Your task to perform on an android device: Is it going to rain tomorrow? Image 0: 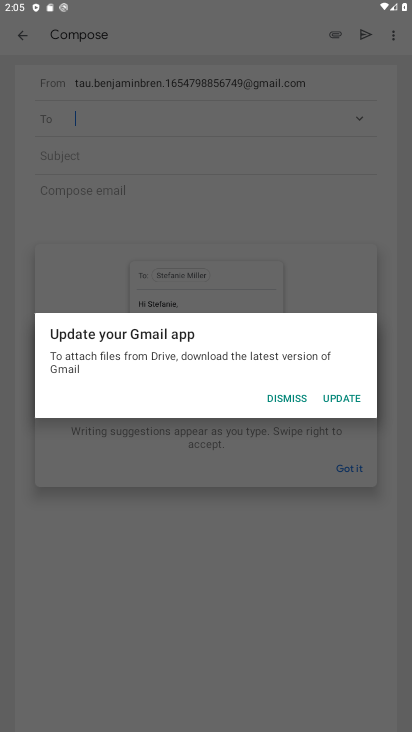
Step 0: press home button
Your task to perform on an android device: Is it going to rain tomorrow? Image 1: 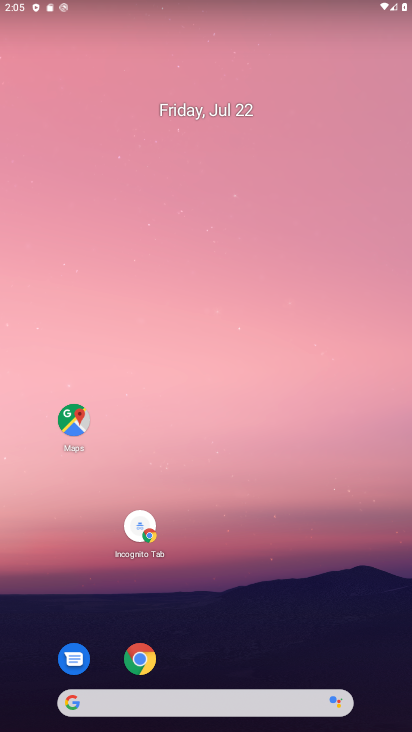
Step 1: click (283, 669)
Your task to perform on an android device: Is it going to rain tomorrow? Image 2: 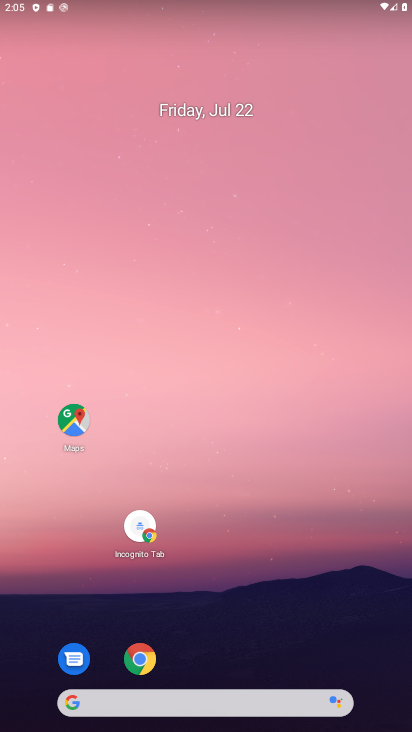
Step 2: click (136, 647)
Your task to perform on an android device: Is it going to rain tomorrow? Image 3: 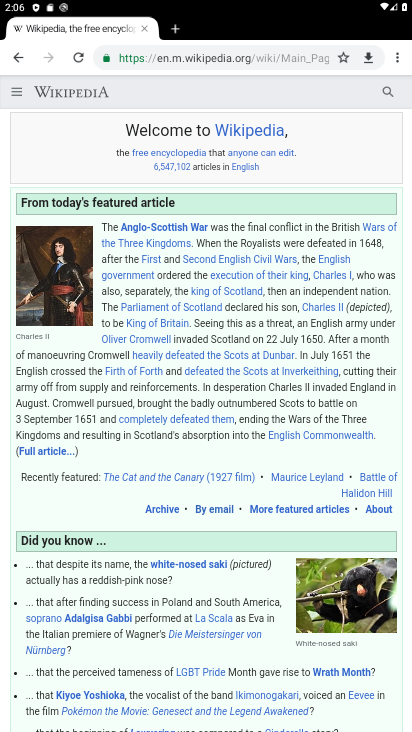
Step 3: click (261, 53)
Your task to perform on an android device: Is it going to rain tomorrow? Image 4: 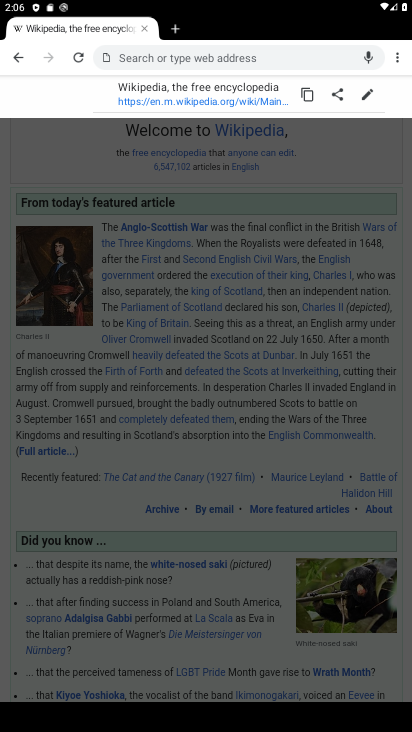
Step 4: type "weather tomorrow"
Your task to perform on an android device: Is it going to rain tomorrow? Image 5: 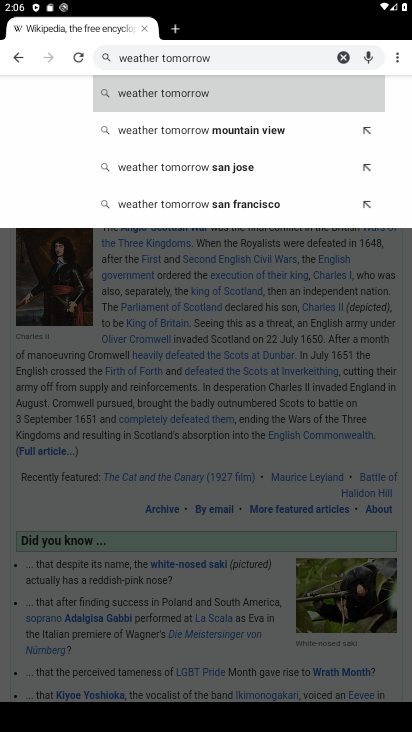
Step 5: click (248, 99)
Your task to perform on an android device: Is it going to rain tomorrow? Image 6: 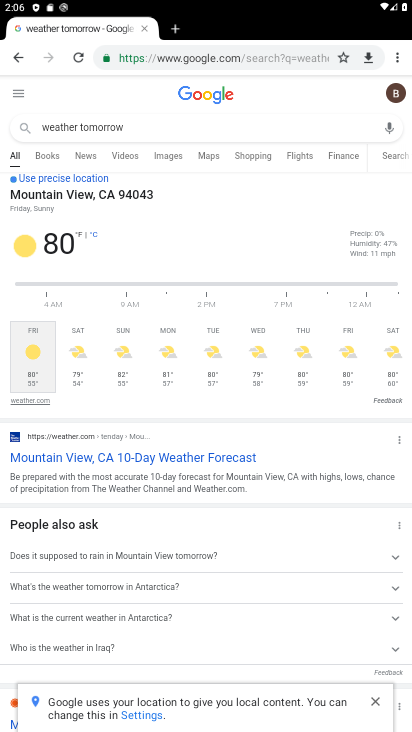
Step 6: task complete